Your task to perform on an android device: Open display settings Image 0: 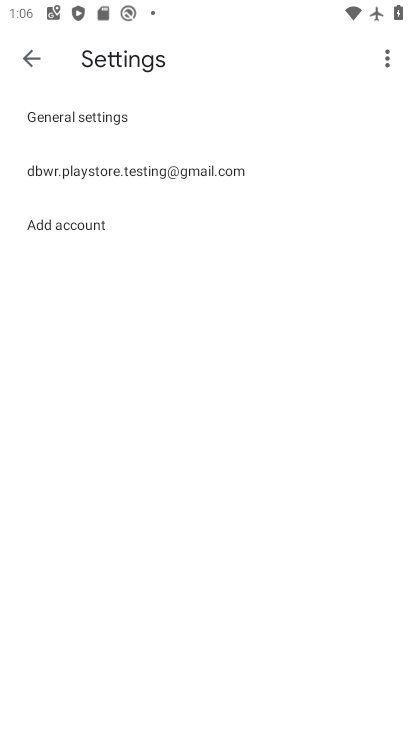
Step 0: press home button
Your task to perform on an android device: Open display settings Image 1: 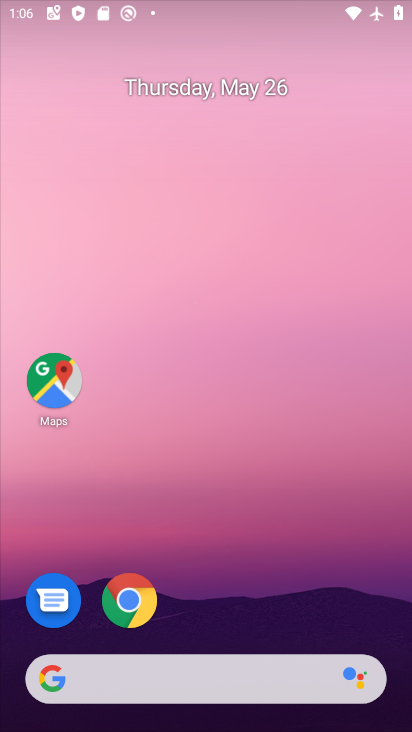
Step 1: drag from (265, 575) to (266, 142)
Your task to perform on an android device: Open display settings Image 2: 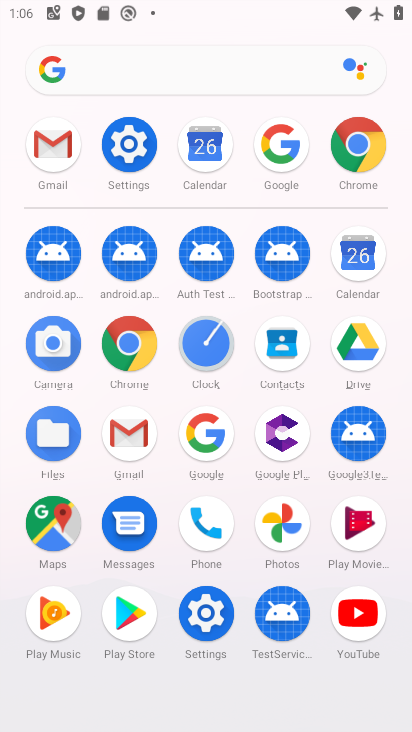
Step 2: click (131, 149)
Your task to perform on an android device: Open display settings Image 3: 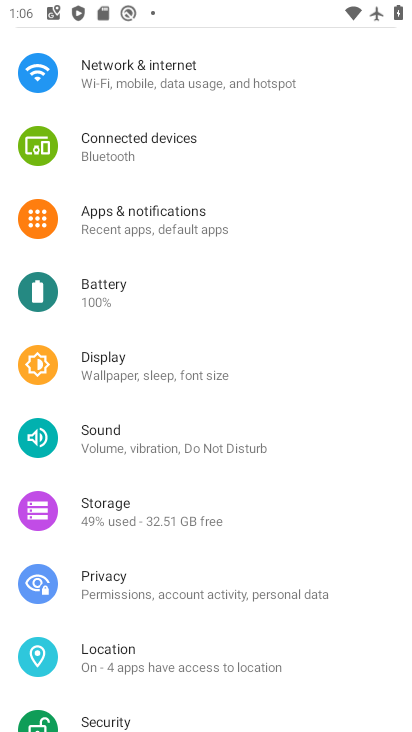
Step 3: click (151, 368)
Your task to perform on an android device: Open display settings Image 4: 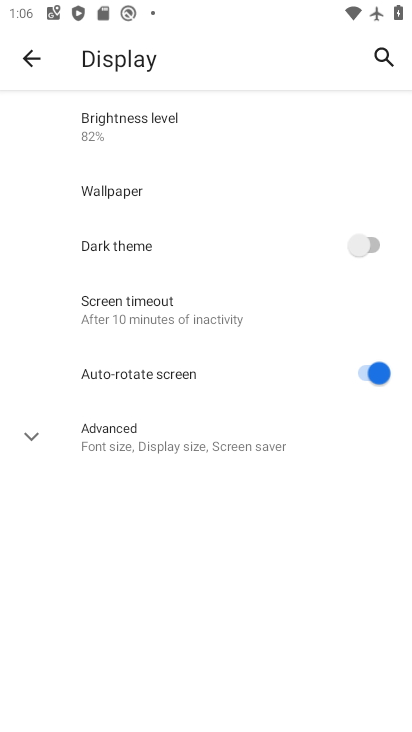
Step 4: task complete